Your task to perform on an android device: toggle show notifications on the lock screen Image 0: 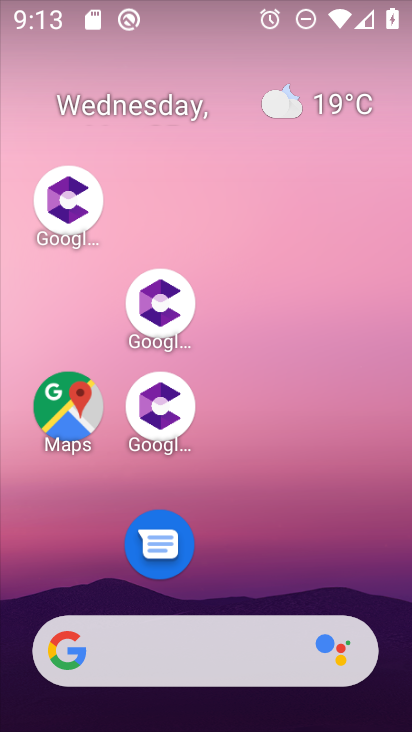
Step 0: drag from (308, 499) to (236, 88)
Your task to perform on an android device: toggle show notifications on the lock screen Image 1: 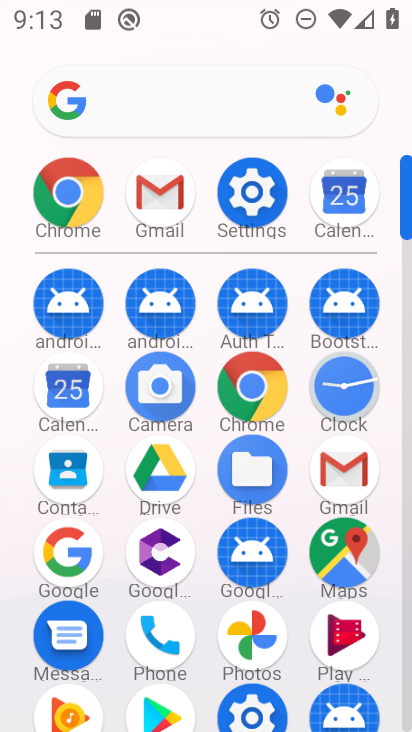
Step 1: click (255, 192)
Your task to perform on an android device: toggle show notifications on the lock screen Image 2: 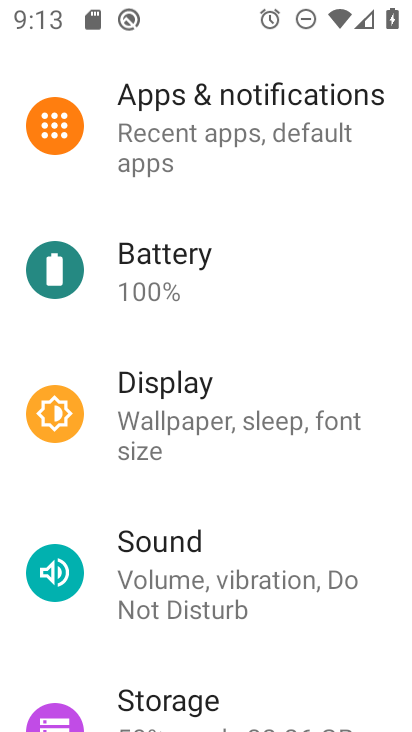
Step 2: drag from (250, 528) to (238, 209)
Your task to perform on an android device: toggle show notifications on the lock screen Image 3: 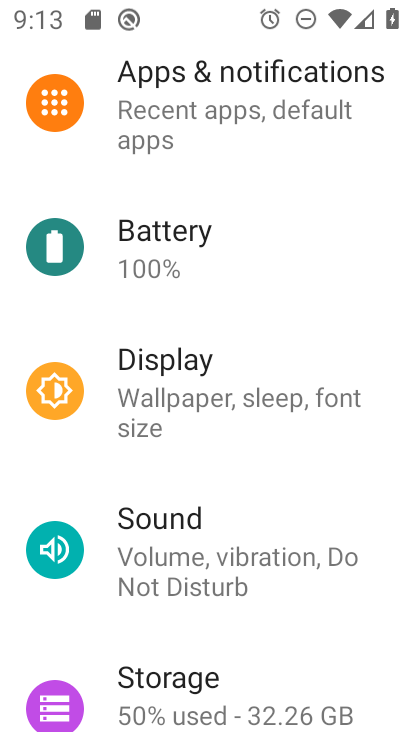
Step 3: drag from (250, 631) to (219, 245)
Your task to perform on an android device: toggle show notifications on the lock screen Image 4: 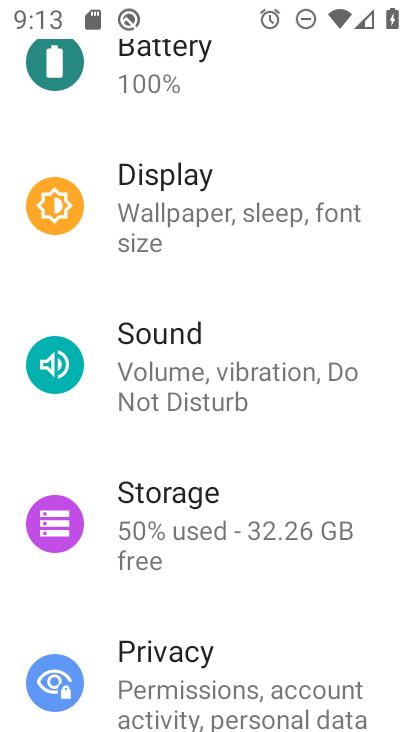
Step 4: drag from (219, 553) to (202, 261)
Your task to perform on an android device: toggle show notifications on the lock screen Image 5: 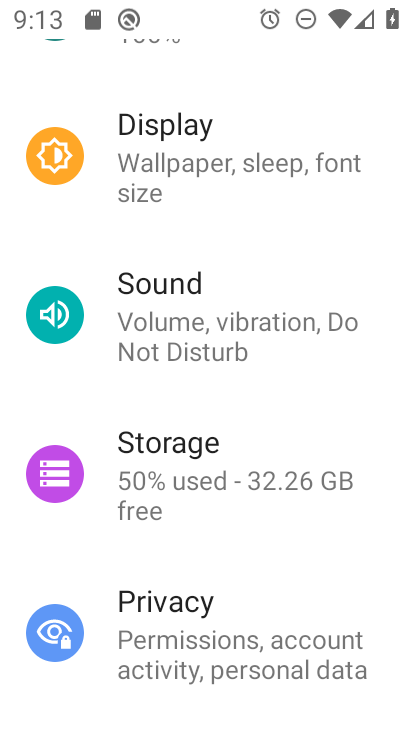
Step 5: drag from (244, 534) to (224, 265)
Your task to perform on an android device: toggle show notifications on the lock screen Image 6: 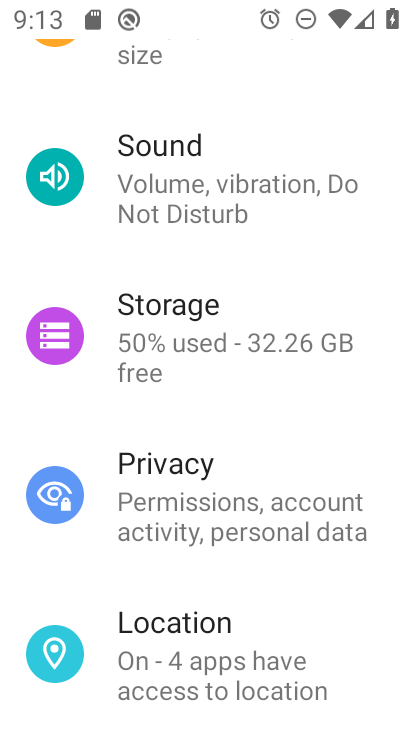
Step 6: drag from (255, 130) to (165, 721)
Your task to perform on an android device: toggle show notifications on the lock screen Image 7: 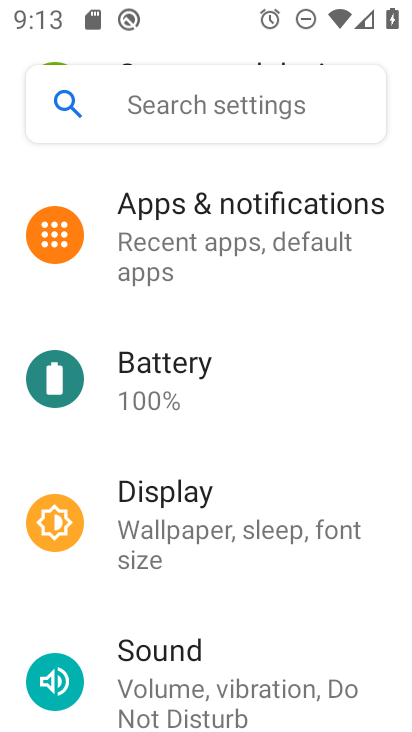
Step 7: click (235, 182)
Your task to perform on an android device: toggle show notifications on the lock screen Image 8: 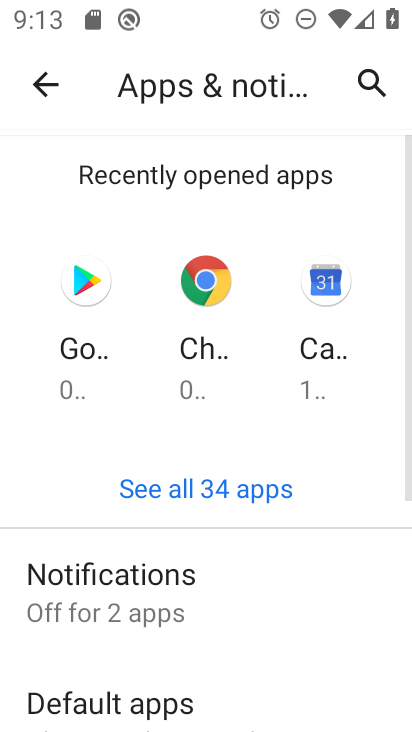
Step 8: drag from (244, 633) to (189, 289)
Your task to perform on an android device: toggle show notifications on the lock screen Image 9: 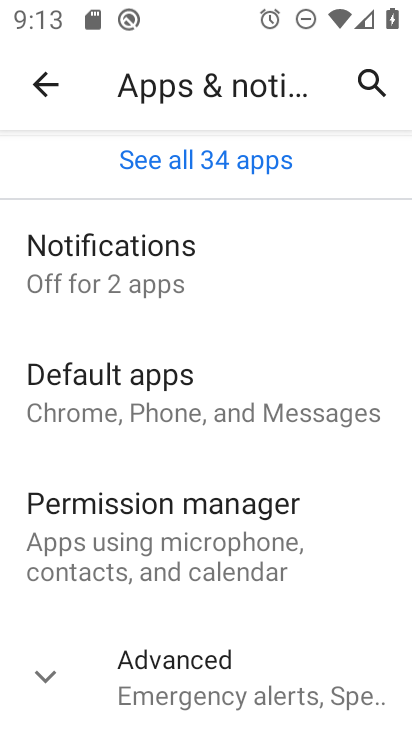
Step 9: click (116, 238)
Your task to perform on an android device: toggle show notifications on the lock screen Image 10: 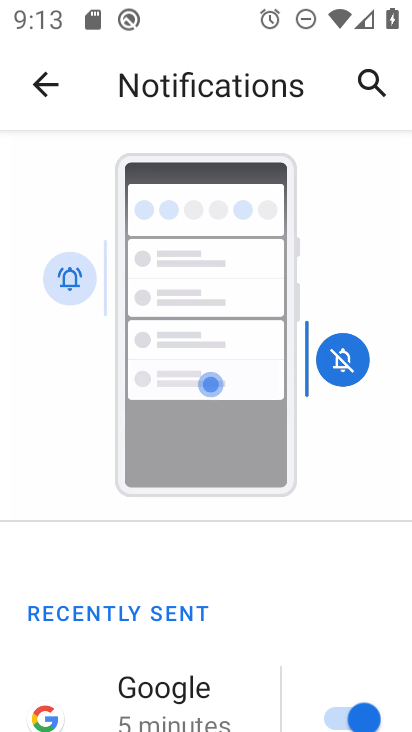
Step 10: drag from (298, 548) to (262, 203)
Your task to perform on an android device: toggle show notifications on the lock screen Image 11: 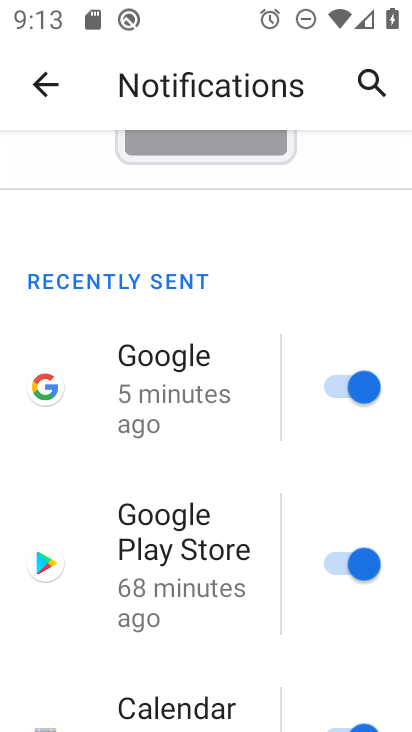
Step 11: drag from (244, 552) to (234, 156)
Your task to perform on an android device: toggle show notifications on the lock screen Image 12: 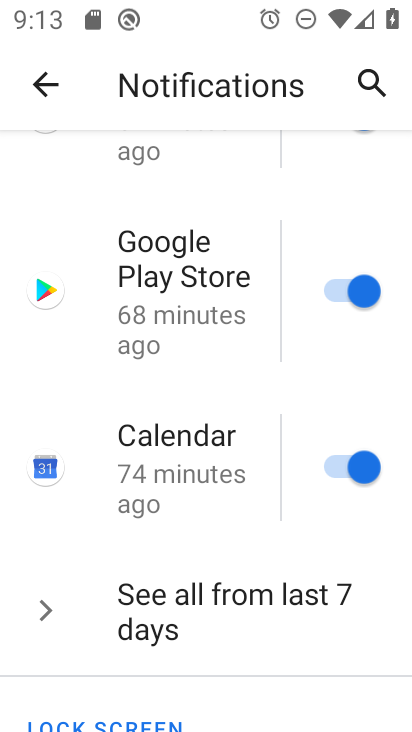
Step 12: drag from (259, 580) to (254, 254)
Your task to perform on an android device: toggle show notifications on the lock screen Image 13: 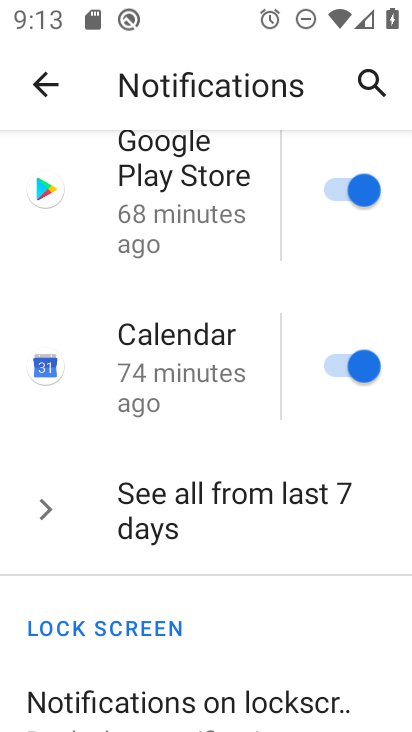
Step 13: drag from (254, 557) to (228, 214)
Your task to perform on an android device: toggle show notifications on the lock screen Image 14: 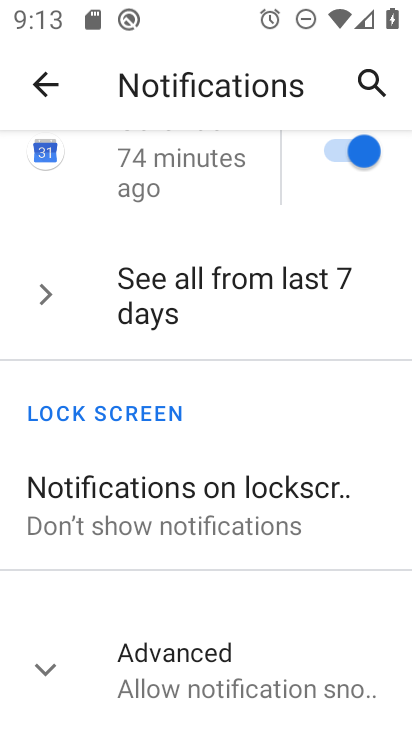
Step 14: click (181, 494)
Your task to perform on an android device: toggle show notifications on the lock screen Image 15: 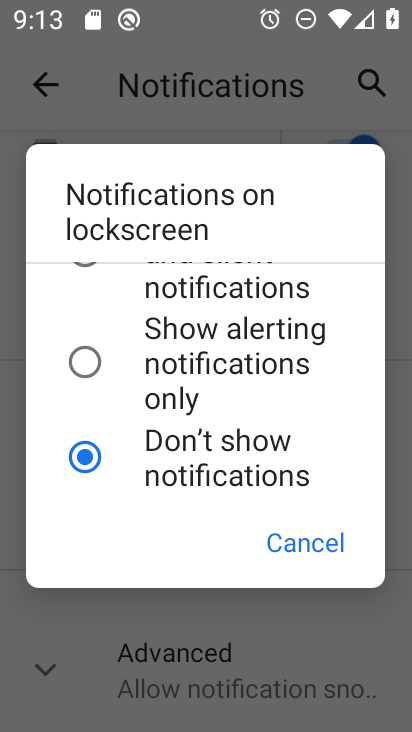
Step 15: click (86, 274)
Your task to perform on an android device: toggle show notifications on the lock screen Image 16: 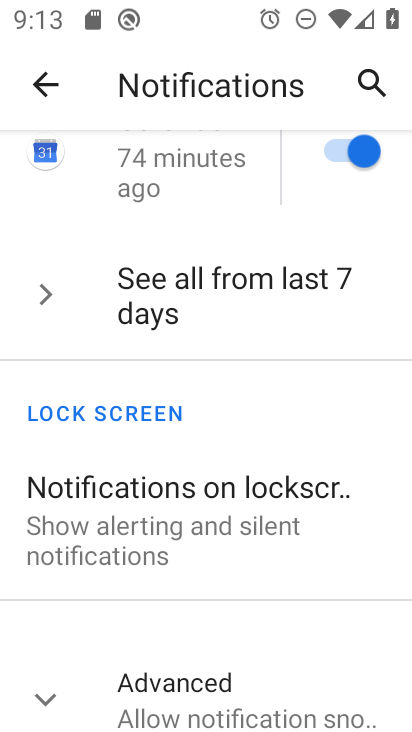
Step 16: task complete